Your task to perform on an android device: turn off notifications settings in the gmail app Image 0: 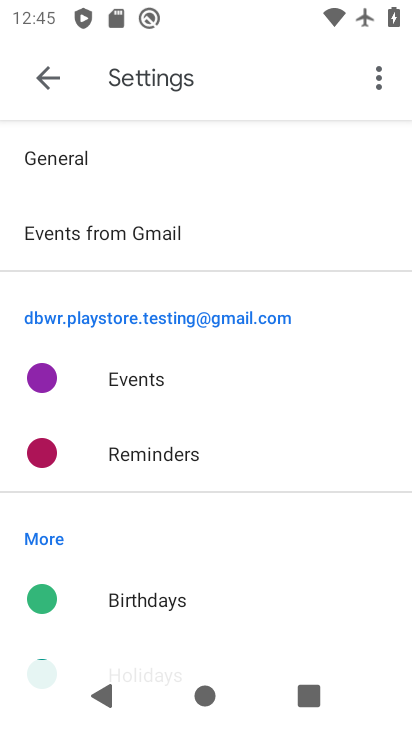
Step 0: press home button
Your task to perform on an android device: turn off notifications settings in the gmail app Image 1: 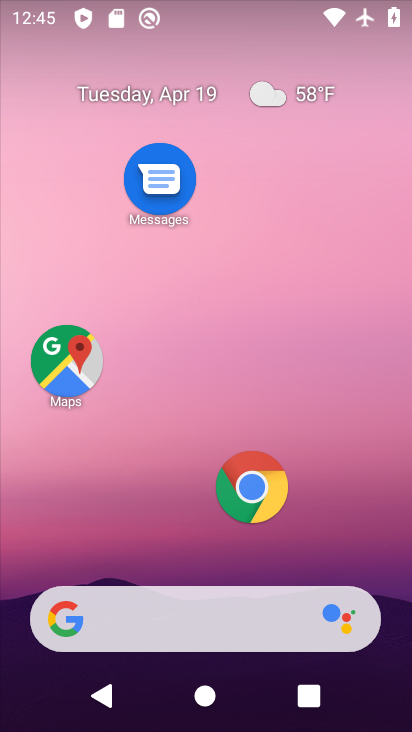
Step 1: drag from (201, 582) to (191, 273)
Your task to perform on an android device: turn off notifications settings in the gmail app Image 2: 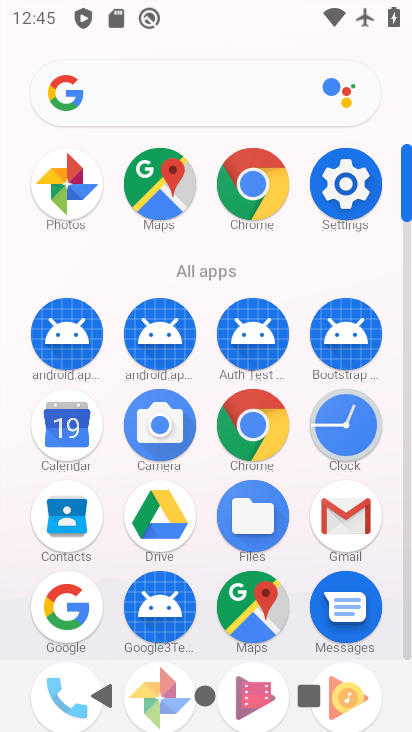
Step 2: click (351, 526)
Your task to perform on an android device: turn off notifications settings in the gmail app Image 3: 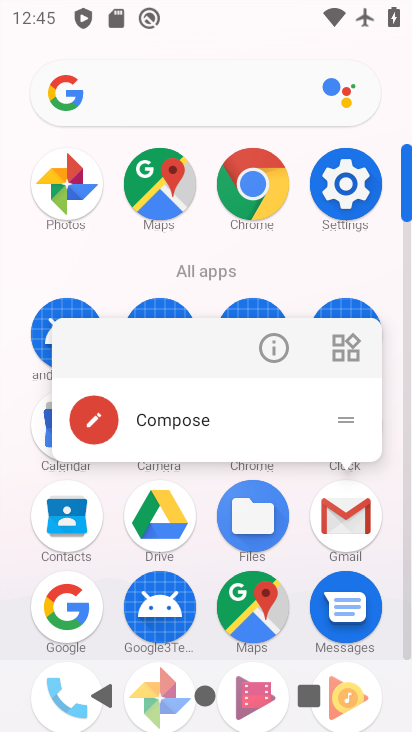
Step 3: click (350, 512)
Your task to perform on an android device: turn off notifications settings in the gmail app Image 4: 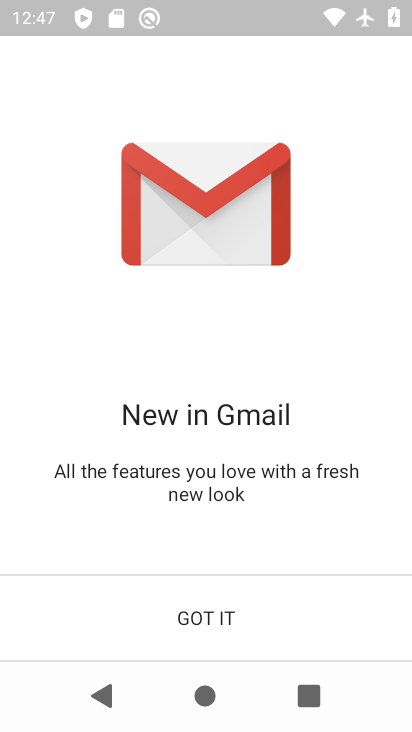
Step 4: click (190, 610)
Your task to perform on an android device: turn off notifications settings in the gmail app Image 5: 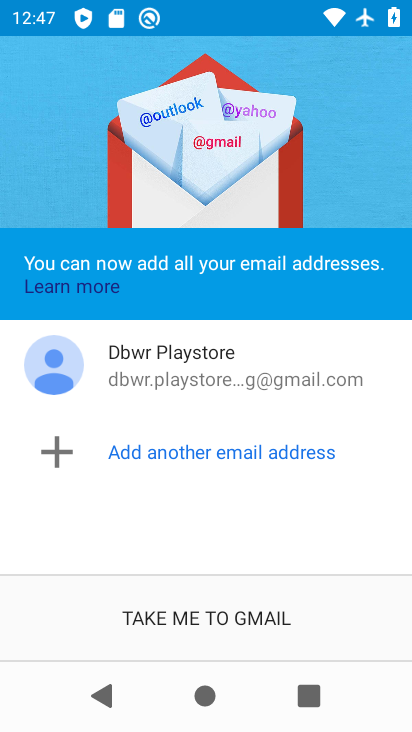
Step 5: click (165, 622)
Your task to perform on an android device: turn off notifications settings in the gmail app Image 6: 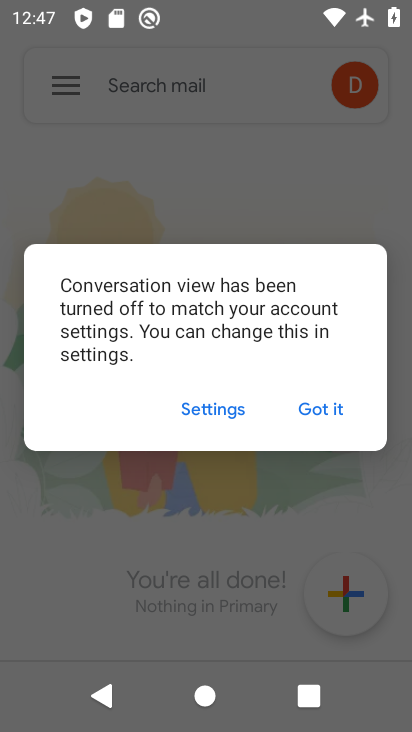
Step 6: click (332, 409)
Your task to perform on an android device: turn off notifications settings in the gmail app Image 7: 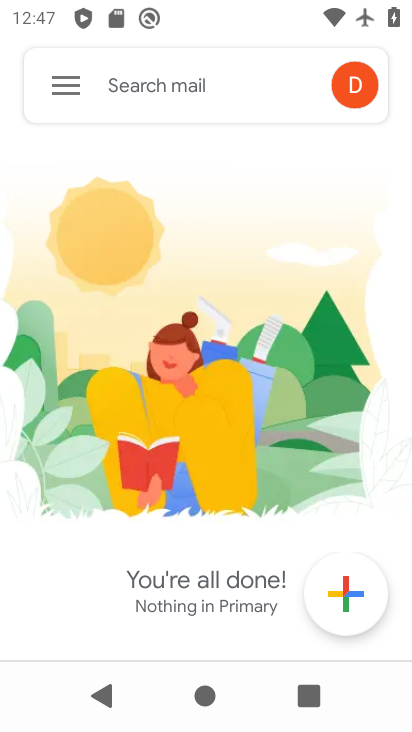
Step 7: click (49, 85)
Your task to perform on an android device: turn off notifications settings in the gmail app Image 8: 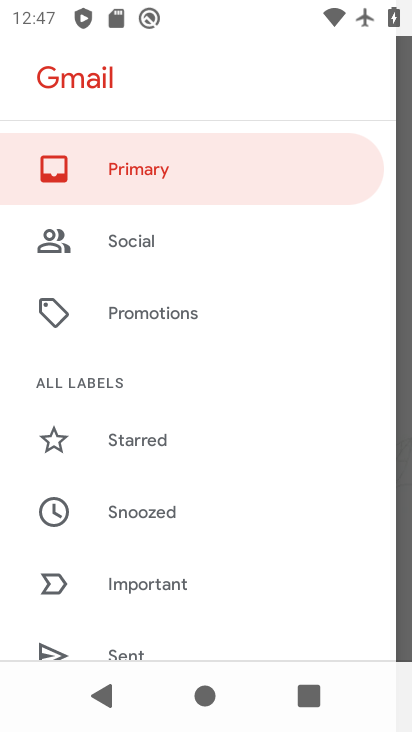
Step 8: drag from (135, 653) to (159, 292)
Your task to perform on an android device: turn off notifications settings in the gmail app Image 9: 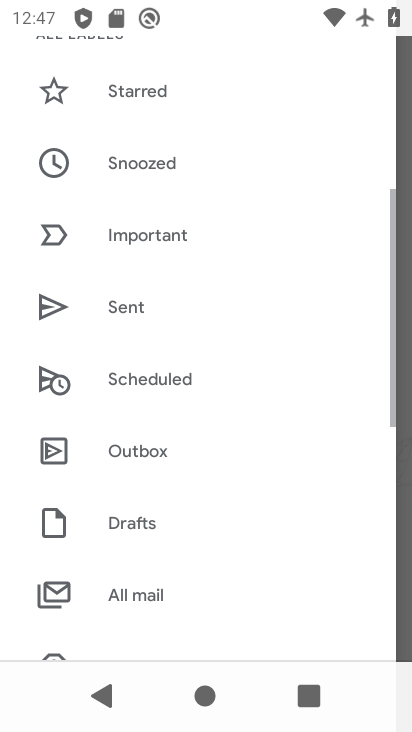
Step 9: drag from (133, 627) to (140, 329)
Your task to perform on an android device: turn off notifications settings in the gmail app Image 10: 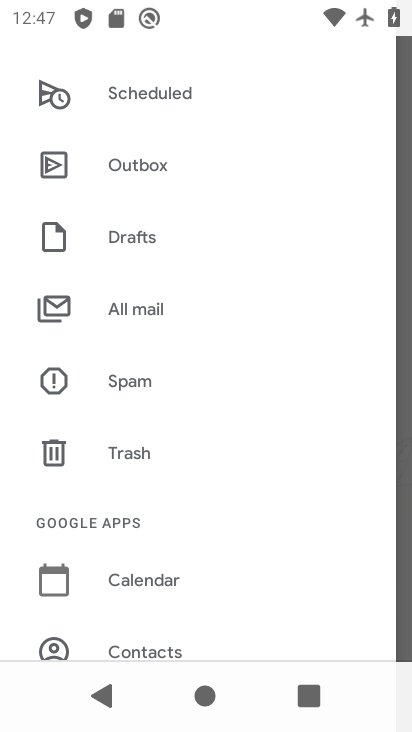
Step 10: drag from (133, 644) to (149, 285)
Your task to perform on an android device: turn off notifications settings in the gmail app Image 11: 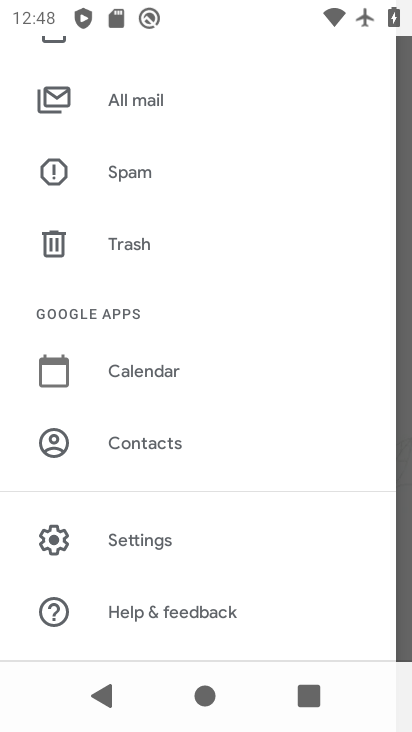
Step 11: click (122, 542)
Your task to perform on an android device: turn off notifications settings in the gmail app Image 12: 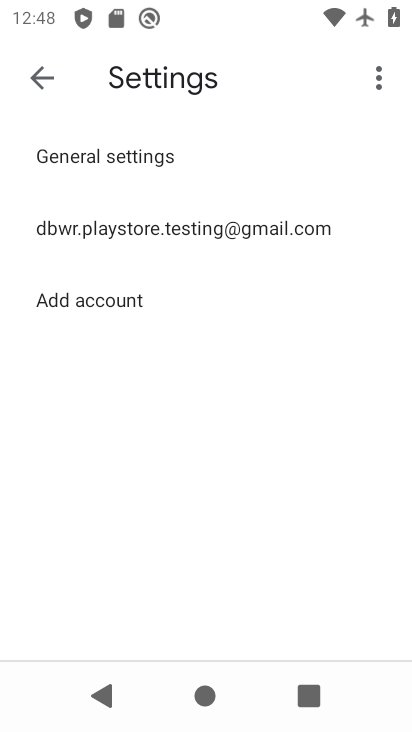
Step 12: click (106, 142)
Your task to perform on an android device: turn off notifications settings in the gmail app Image 13: 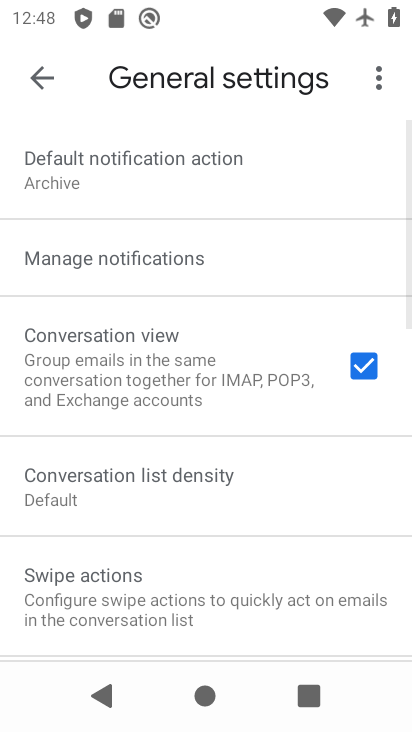
Step 13: click (109, 267)
Your task to perform on an android device: turn off notifications settings in the gmail app Image 14: 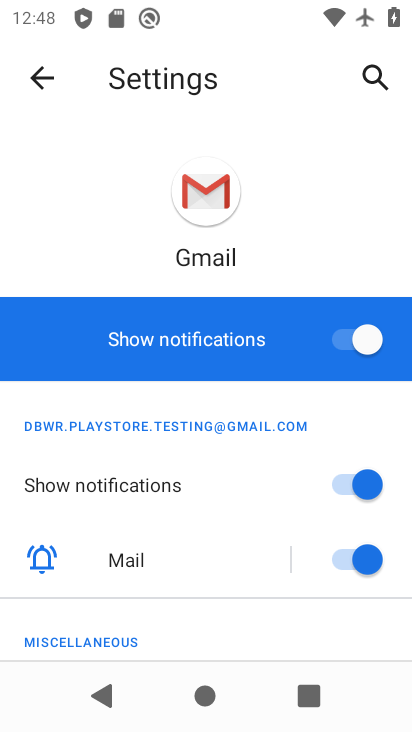
Step 14: click (336, 336)
Your task to perform on an android device: turn off notifications settings in the gmail app Image 15: 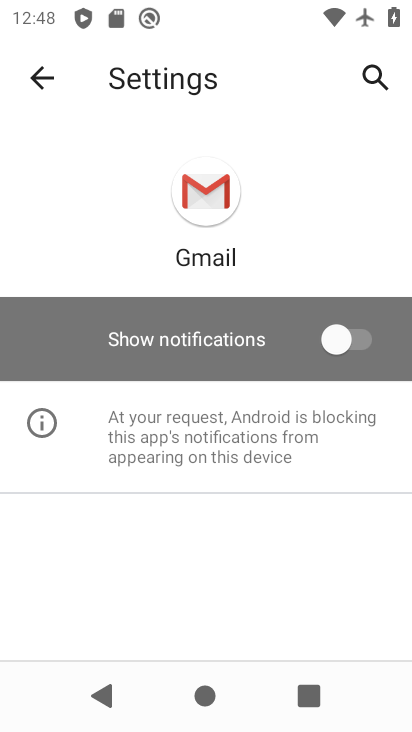
Step 15: task complete